Your task to perform on an android device: change the clock display to show seconds Image 0: 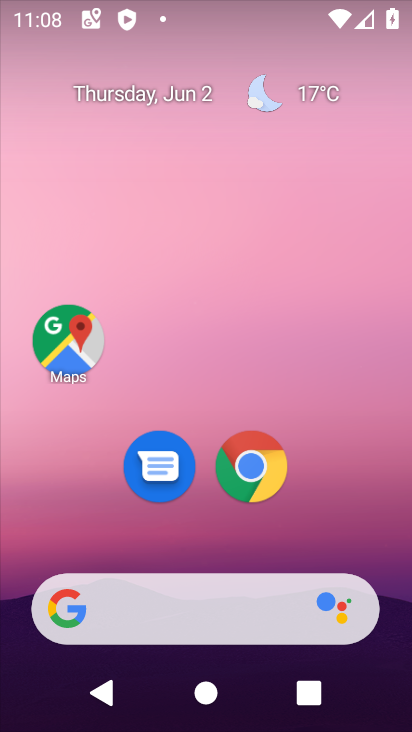
Step 0: drag from (257, 570) to (280, 182)
Your task to perform on an android device: change the clock display to show seconds Image 1: 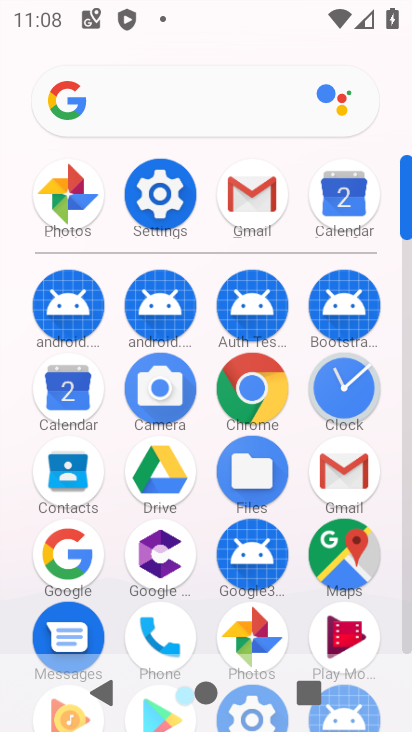
Step 1: click (332, 386)
Your task to perform on an android device: change the clock display to show seconds Image 2: 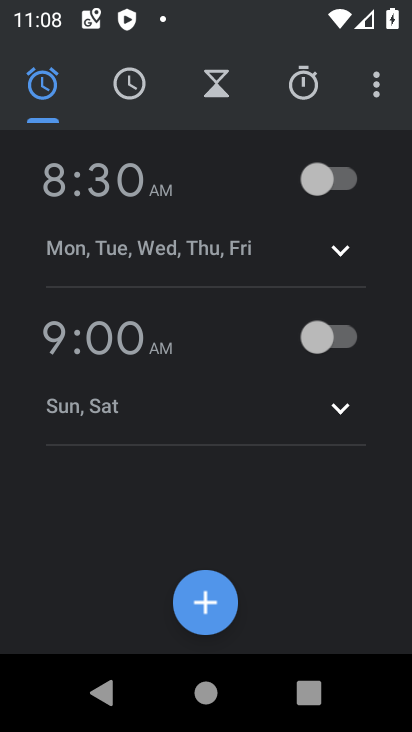
Step 2: click (373, 89)
Your task to perform on an android device: change the clock display to show seconds Image 3: 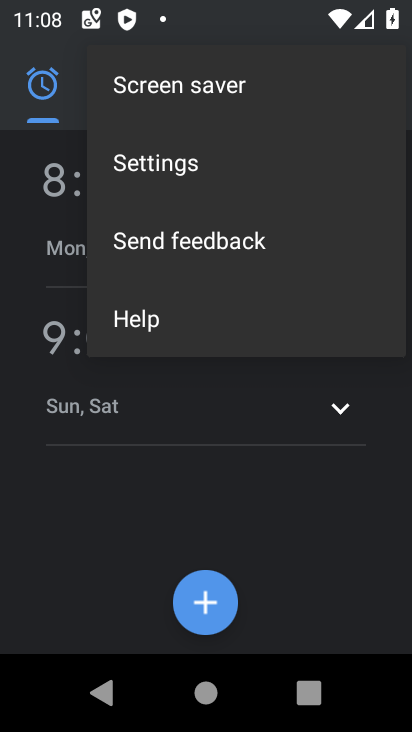
Step 3: click (156, 166)
Your task to perform on an android device: change the clock display to show seconds Image 4: 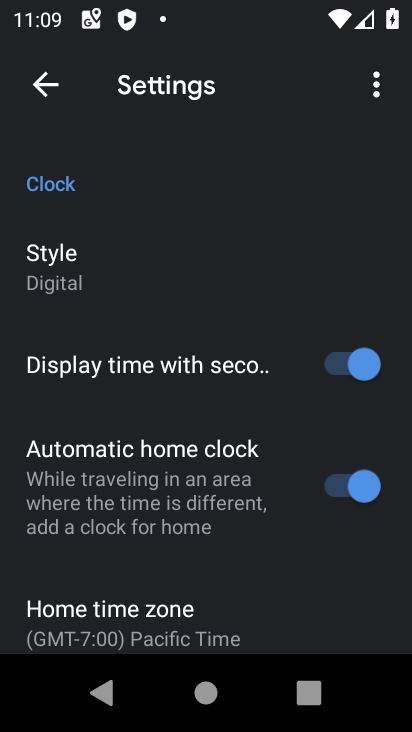
Step 4: task complete